Your task to perform on an android device: Go to wifi settings Image 0: 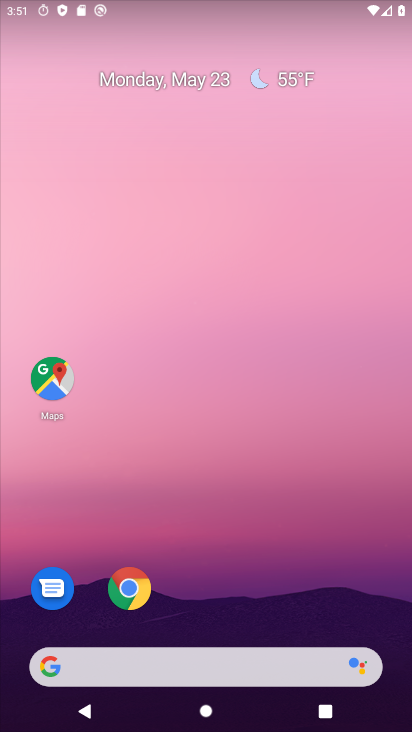
Step 0: drag from (265, 272) to (288, 63)
Your task to perform on an android device: Go to wifi settings Image 1: 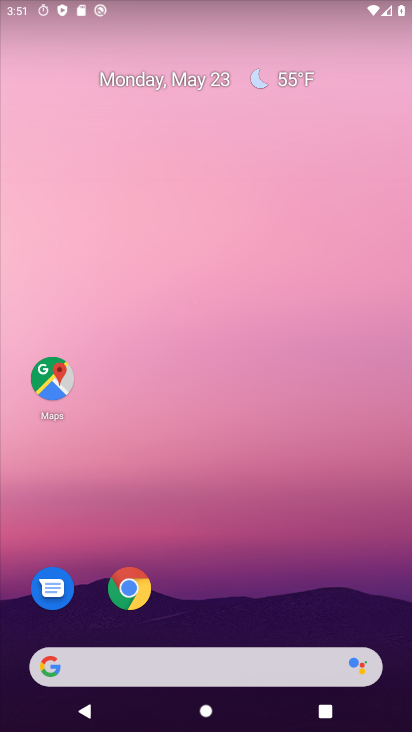
Step 1: drag from (224, 599) to (280, 94)
Your task to perform on an android device: Go to wifi settings Image 2: 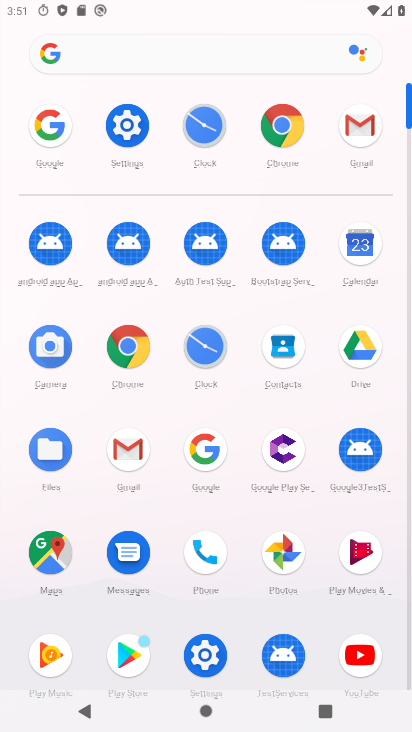
Step 2: click (129, 122)
Your task to perform on an android device: Go to wifi settings Image 3: 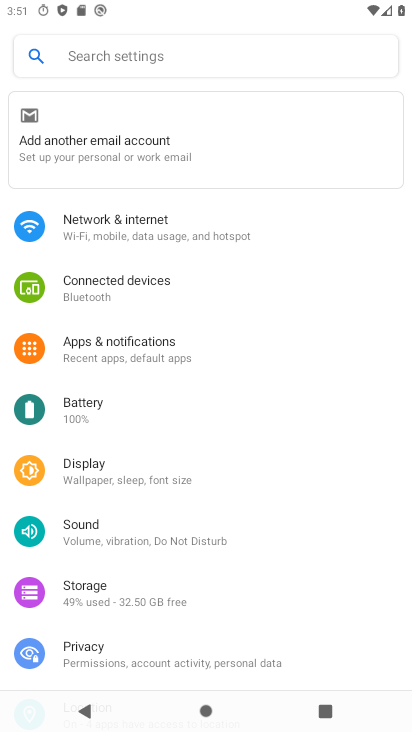
Step 3: click (195, 225)
Your task to perform on an android device: Go to wifi settings Image 4: 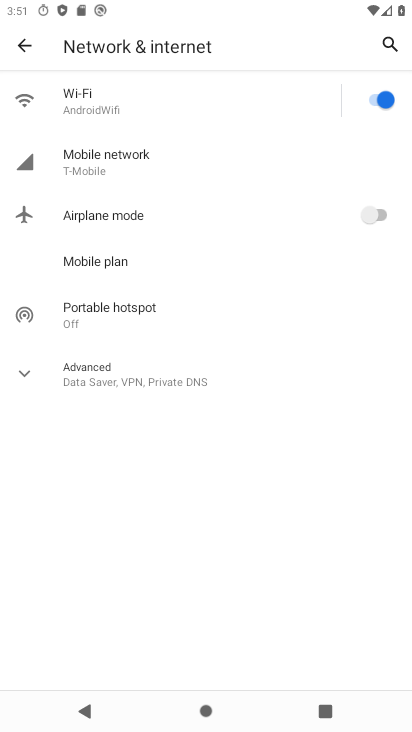
Step 4: click (195, 100)
Your task to perform on an android device: Go to wifi settings Image 5: 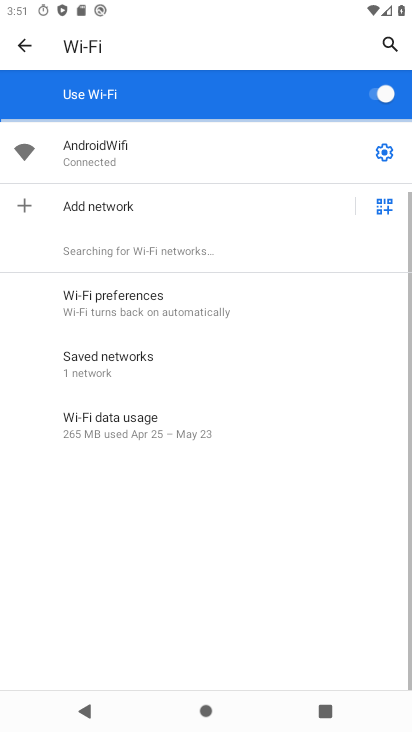
Step 5: task complete